Your task to perform on an android device: open sync settings in chrome Image 0: 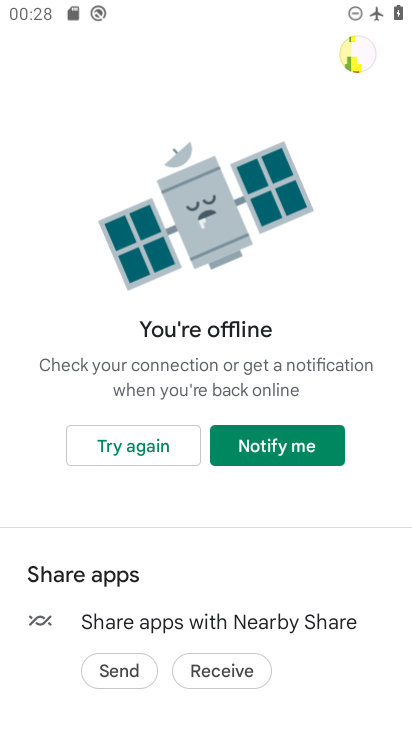
Step 0: press home button
Your task to perform on an android device: open sync settings in chrome Image 1: 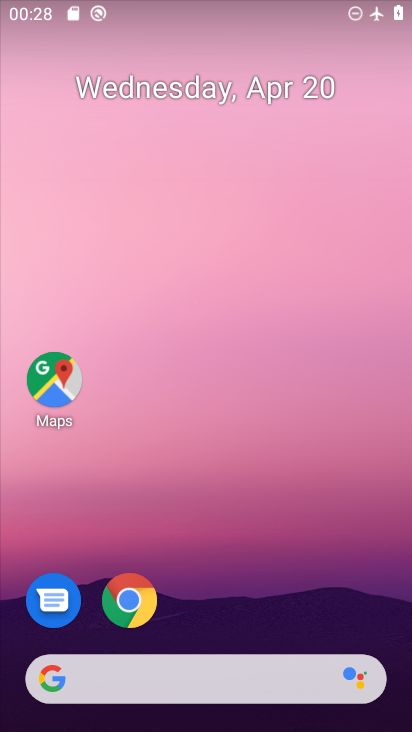
Step 1: click (157, 593)
Your task to perform on an android device: open sync settings in chrome Image 2: 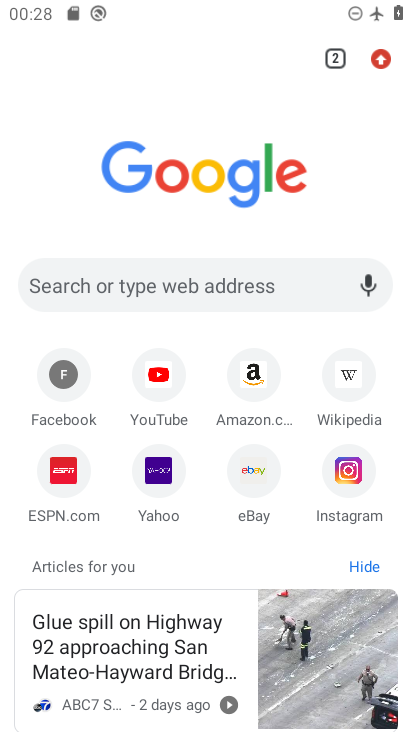
Step 2: click (384, 67)
Your task to perform on an android device: open sync settings in chrome Image 3: 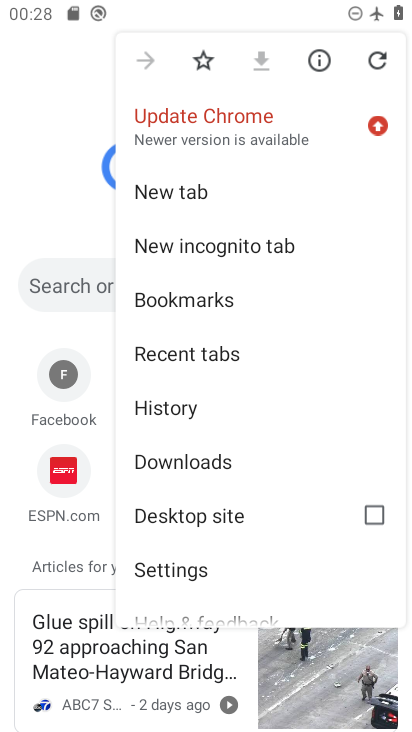
Step 3: click (192, 571)
Your task to perform on an android device: open sync settings in chrome Image 4: 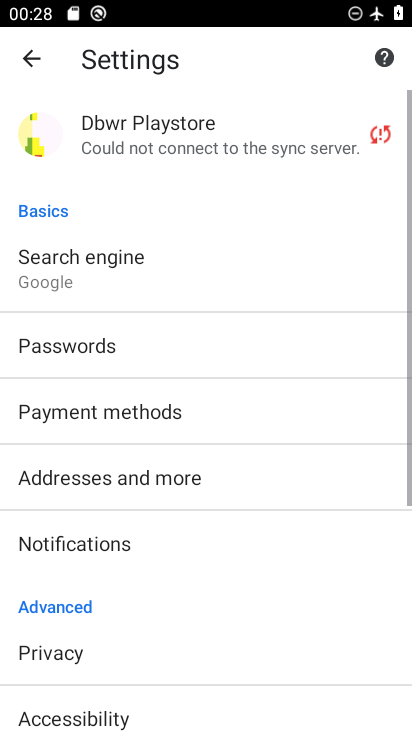
Step 4: drag from (270, 649) to (269, 288)
Your task to perform on an android device: open sync settings in chrome Image 5: 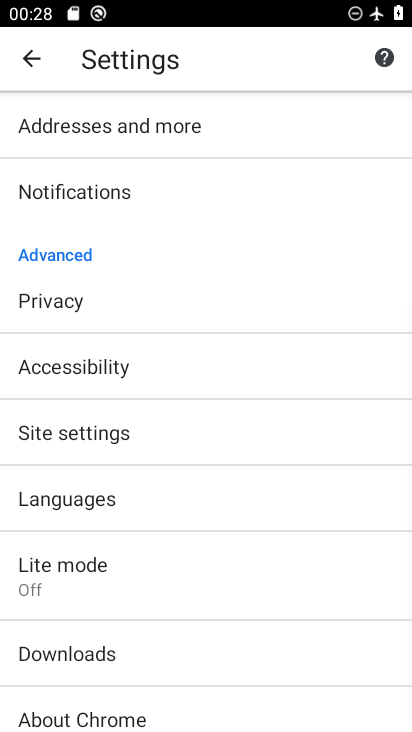
Step 5: drag from (292, 635) to (332, 314)
Your task to perform on an android device: open sync settings in chrome Image 6: 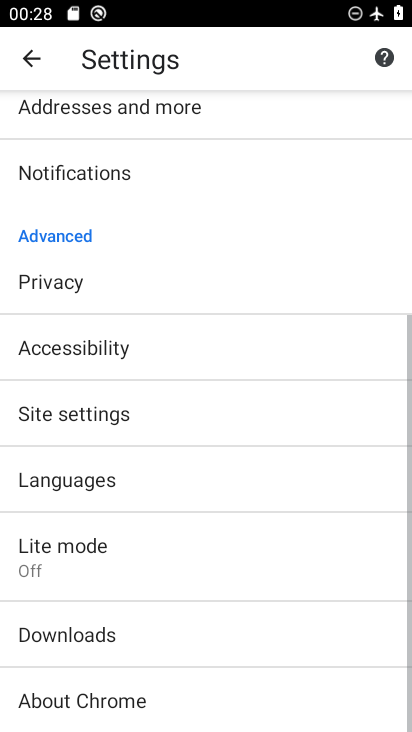
Step 6: click (125, 415)
Your task to perform on an android device: open sync settings in chrome Image 7: 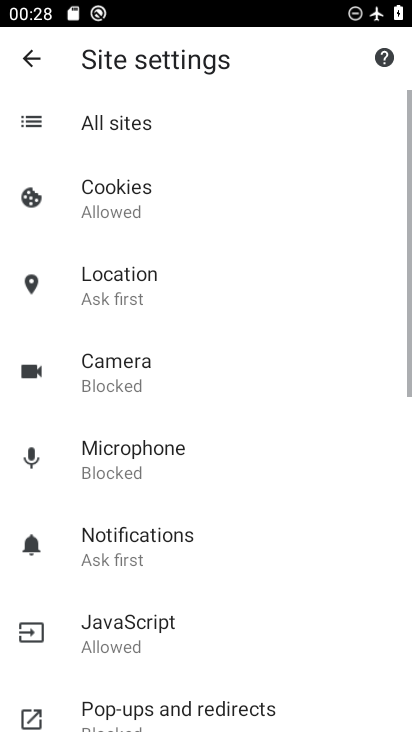
Step 7: drag from (262, 613) to (282, 273)
Your task to perform on an android device: open sync settings in chrome Image 8: 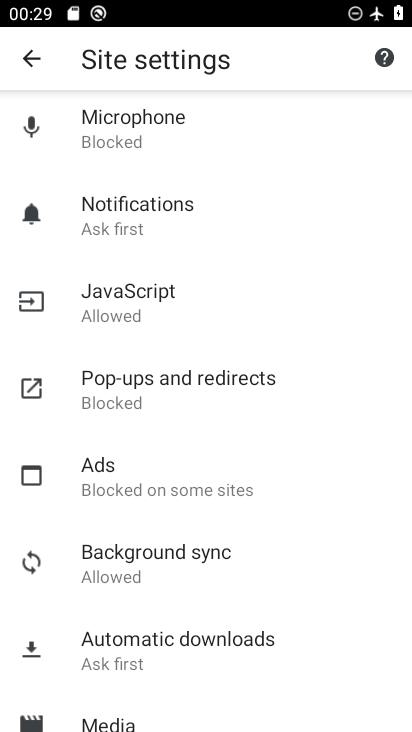
Step 8: click (245, 556)
Your task to perform on an android device: open sync settings in chrome Image 9: 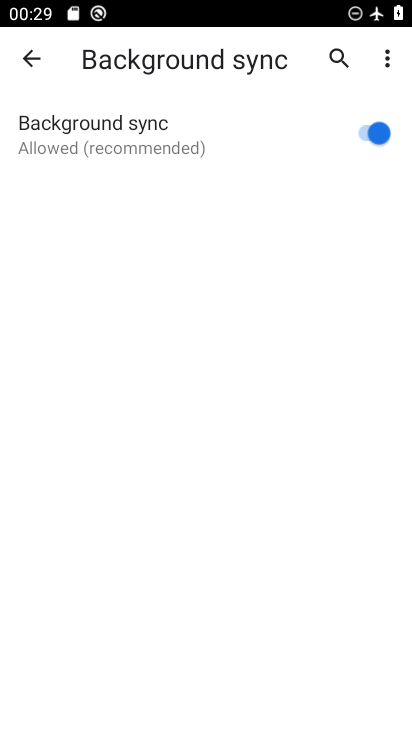
Step 9: task complete